Your task to perform on an android device: turn on wifi Image 0: 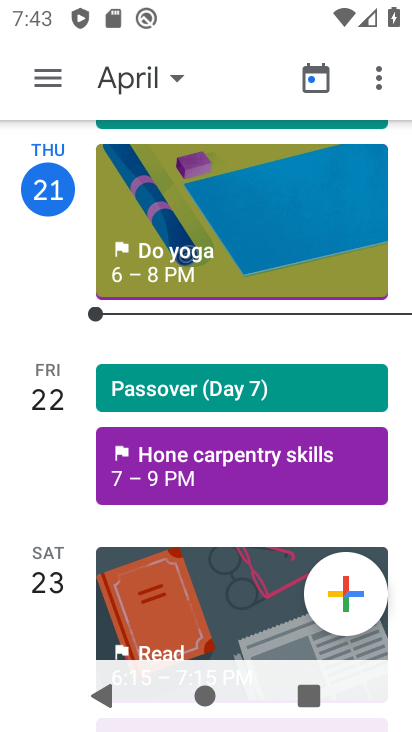
Step 0: press back button
Your task to perform on an android device: turn on wifi Image 1: 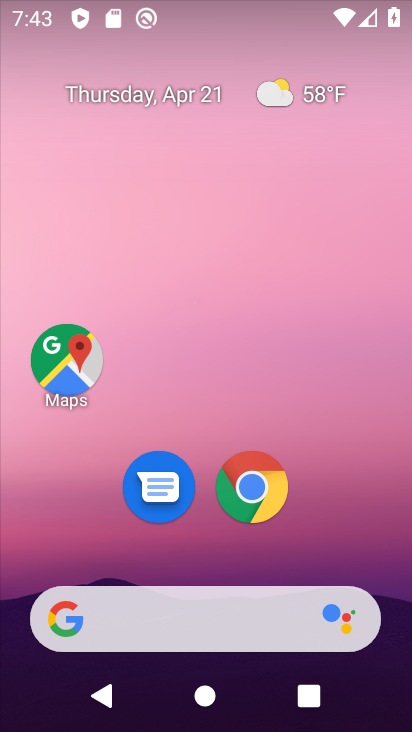
Step 1: drag from (386, 545) to (230, 31)
Your task to perform on an android device: turn on wifi Image 2: 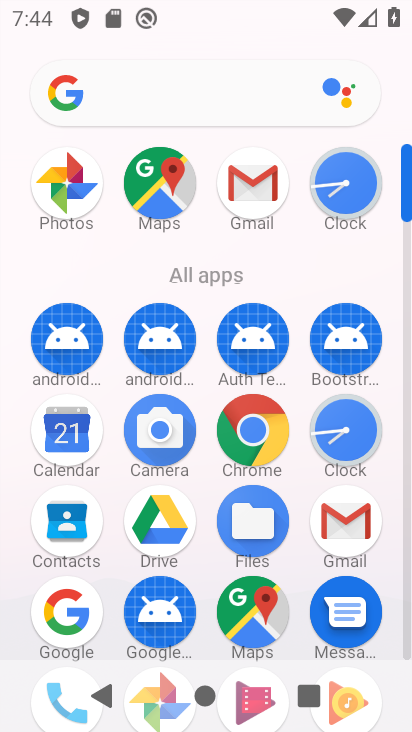
Step 2: drag from (14, 538) to (0, 249)
Your task to perform on an android device: turn on wifi Image 3: 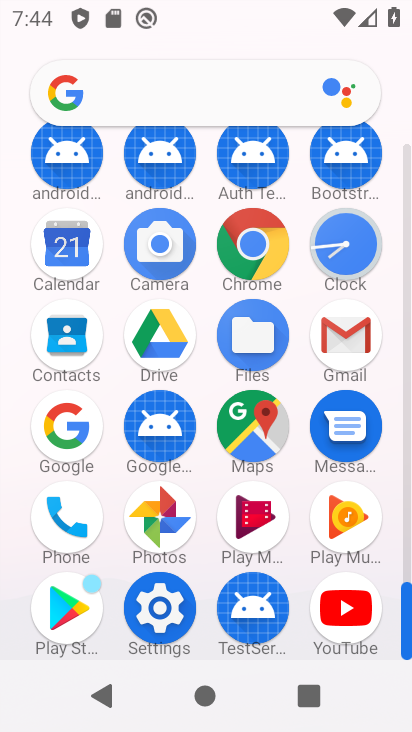
Step 3: click (154, 609)
Your task to perform on an android device: turn on wifi Image 4: 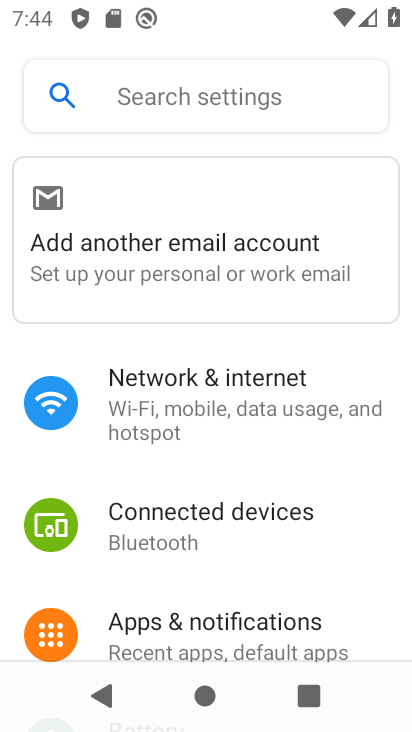
Step 4: click (301, 394)
Your task to perform on an android device: turn on wifi Image 5: 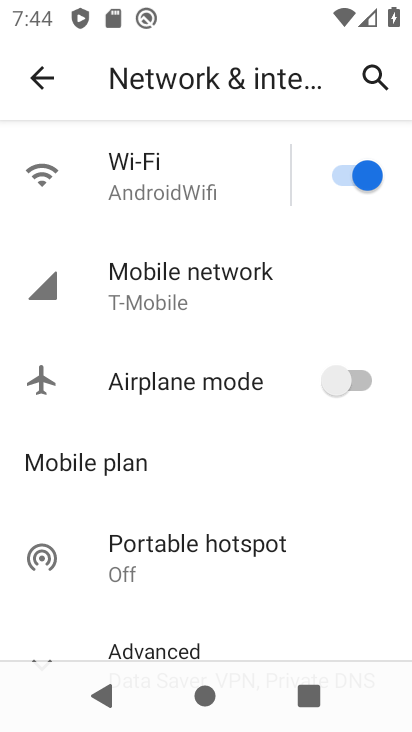
Step 5: task complete